Your task to perform on an android device: Show me recent news Image 0: 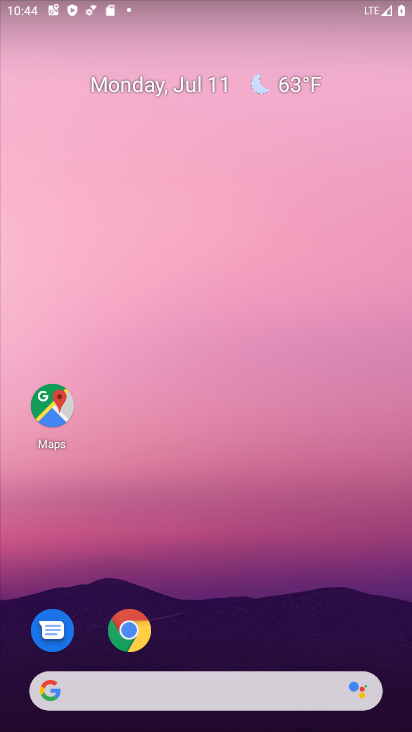
Step 0: drag from (8, 288) to (393, 348)
Your task to perform on an android device: Show me recent news Image 1: 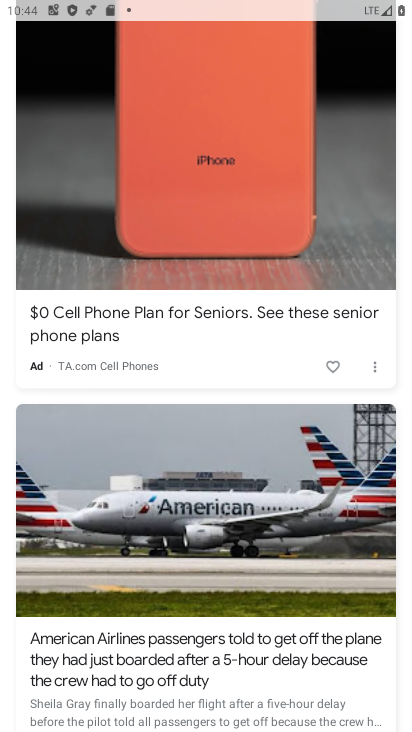
Step 1: task complete